Your task to perform on an android device: Go to privacy settings Image 0: 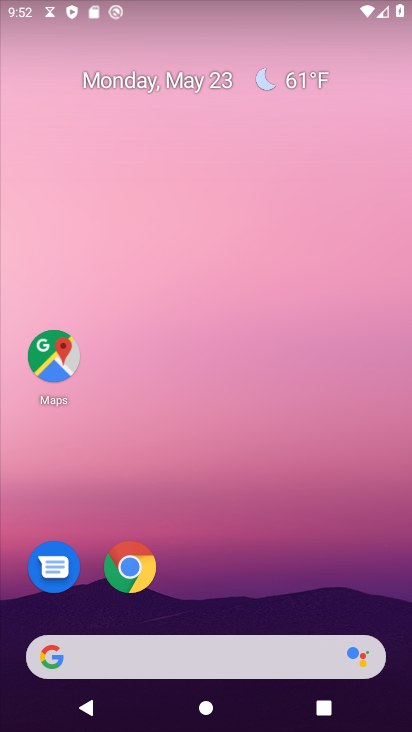
Step 0: click (128, 558)
Your task to perform on an android device: Go to privacy settings Image 1: 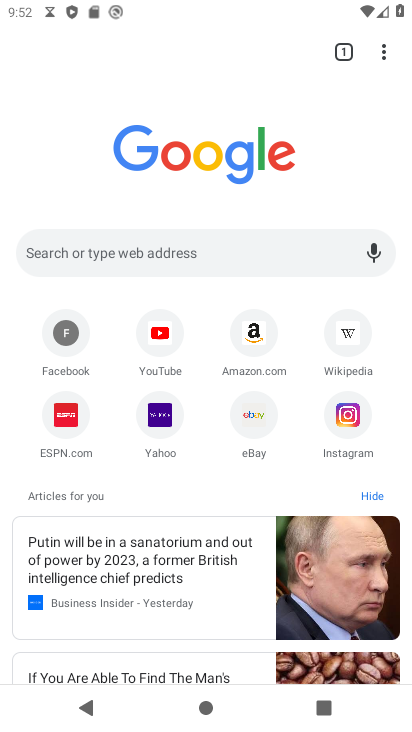
Step 1: drag from (398, 56) to (282, 445)
Your task to perform on an android device: Go to privacy settings Image 2: 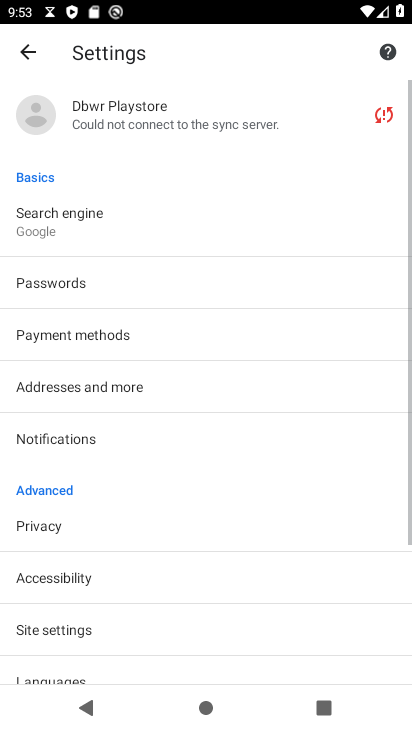
Step 2: click (141, 516)
Your task to perform on an android device: Go to privacy settings Image 3: 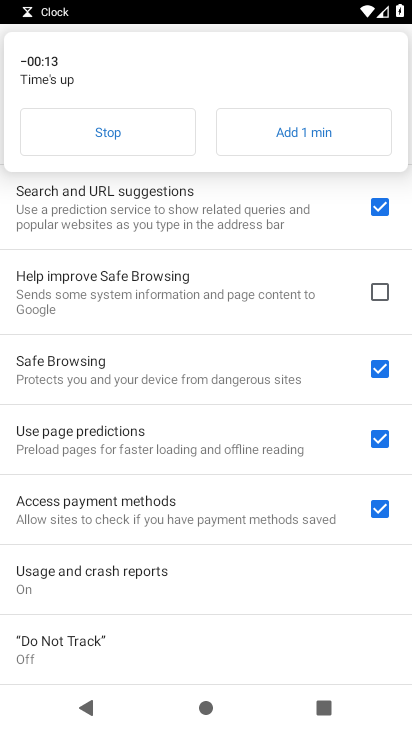
Step 3: drag from (145, 665) to (199, 445)
Your task to perform on an android device: Go to privacy settings Image 4: 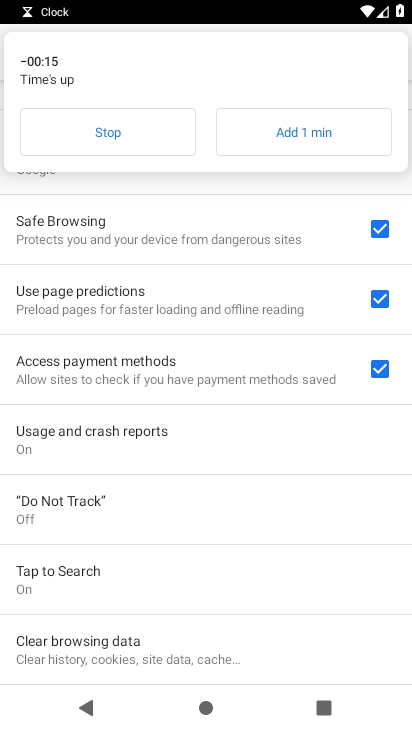
Step 4: click (128, 139)
Your task to perform on an android device: Go to privacy settings Image 5: 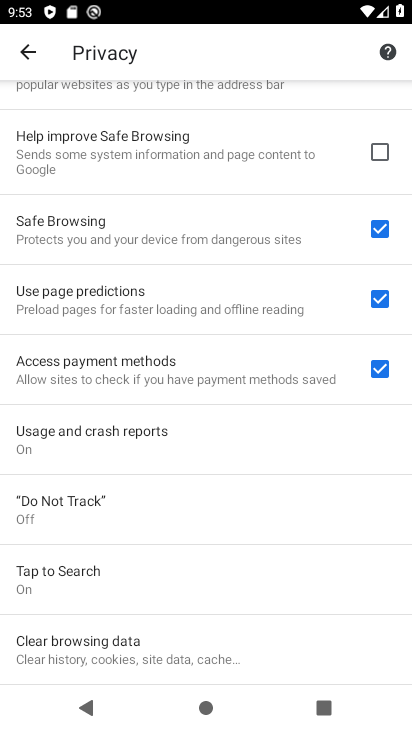
Step 5: task complete